Your task to perform on an android device: See recent photos Image 0: 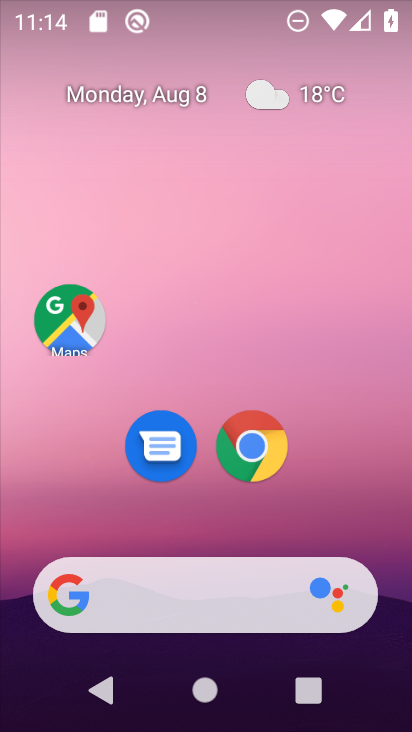
Step 0: drag from (392, 625) to (359, 209)
Your task to perform on an android device: See recent photos Image 1: 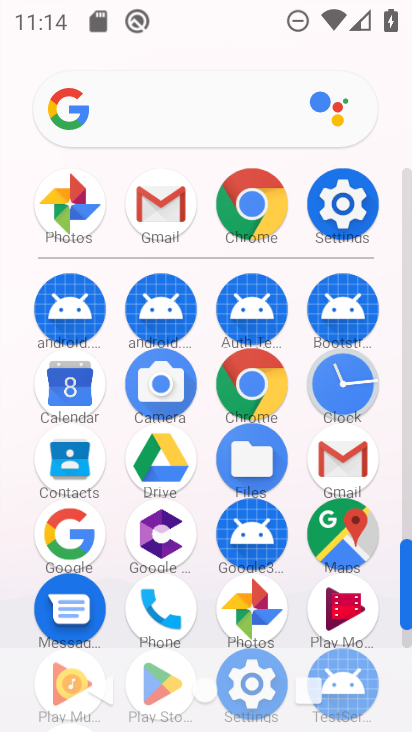
Step 1: click (250, 611)
Your task to perform on an android device: See recent photos Image 2: 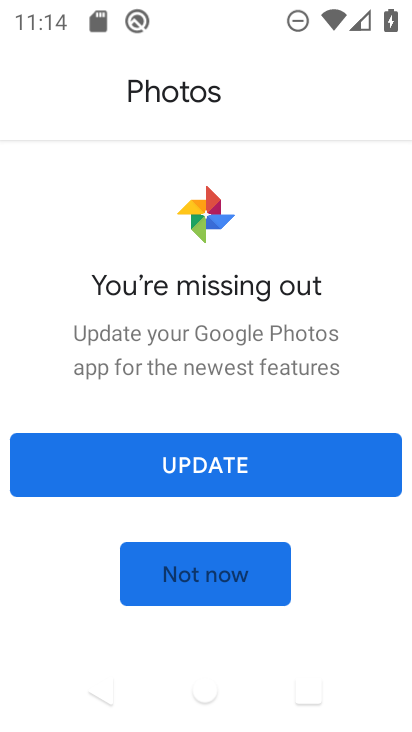
Step 2: click (215, 465)
Your task to perform on an android device: See recent photos Image 3: 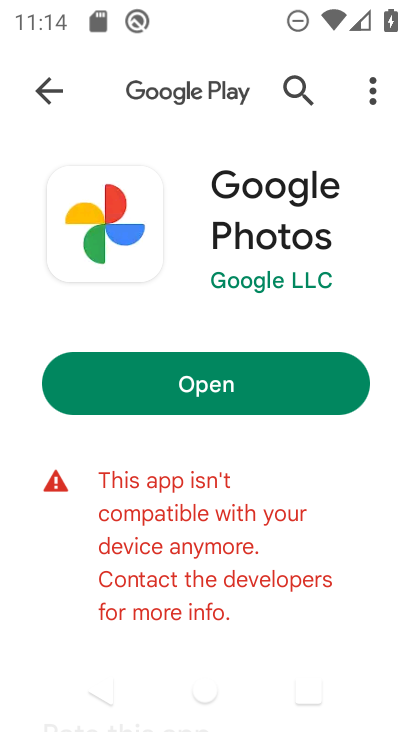
Step 3: click (200, 389)
Your task to perform on an android device: See recent photos Image 4: 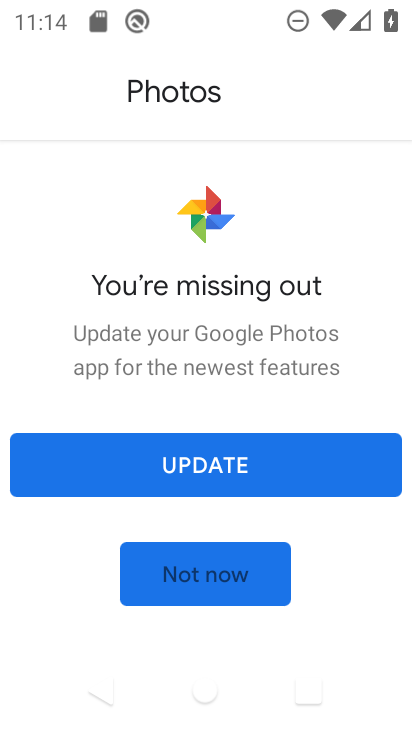
Step 4: click (218, 484)
Your task to perform on an android device: See recent photos Image 5: 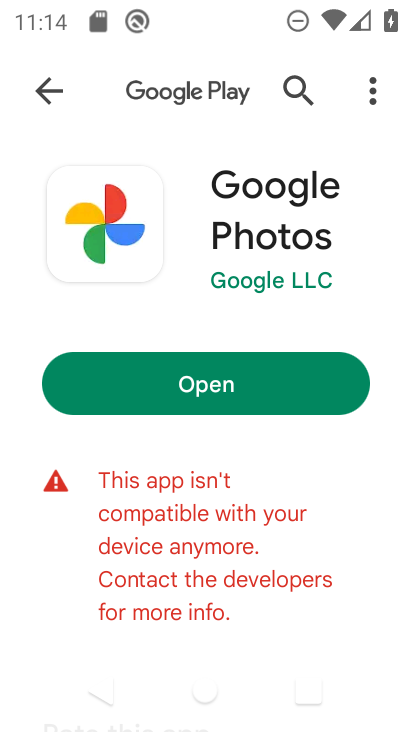
Step 5: task complete